Your task to perform on an android device: turn off notifications settings in the gmail app Image 0: 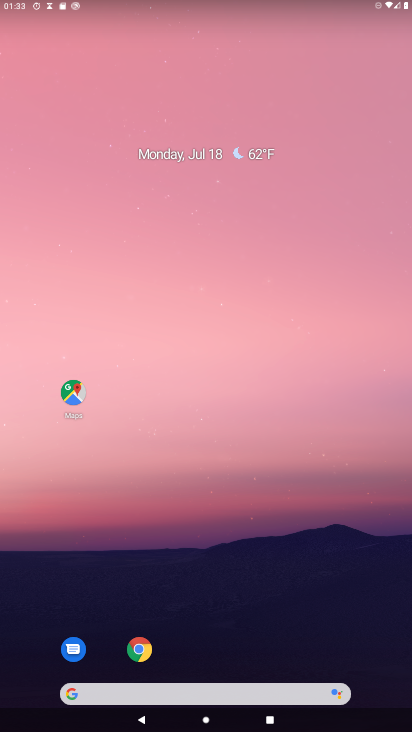
Step 0: drag from (126, 478) to (359, 70)
Your task to perform on an android device: turn off notifications settings in the gmail app Image 1: 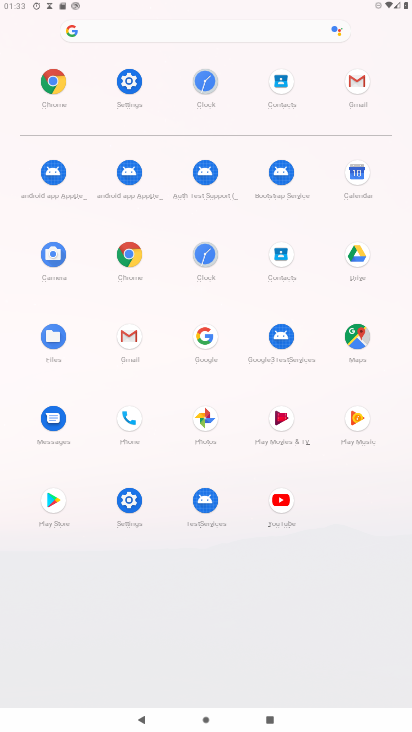
Step 1: click (133, 503)
Your task to perform on an android device: turn off notifications settings in the gmail app Image 2: 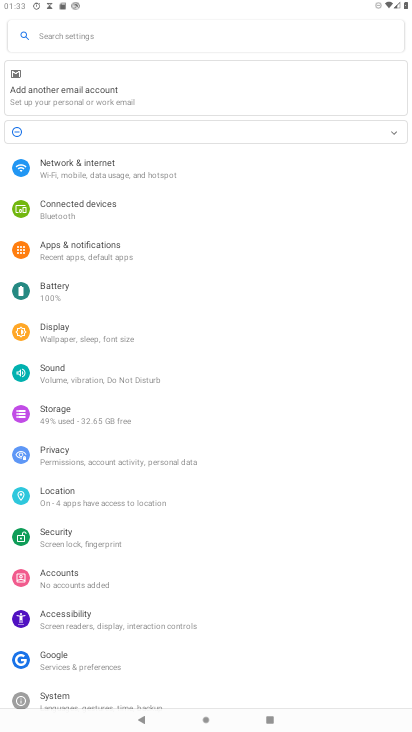
Step 2: click (51, 483)
Your task to perform on an android device: turn off notifications settings in the gmail app Image 3: 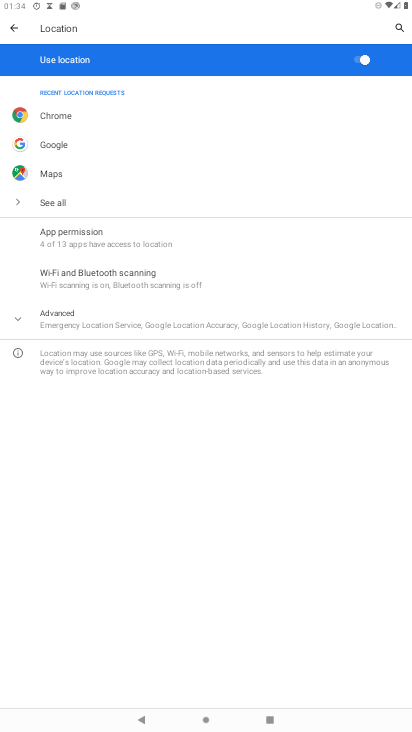
Step 3: press home button
Your task to perform on an android device: turn off notifications settings in the gmail app Image 4: 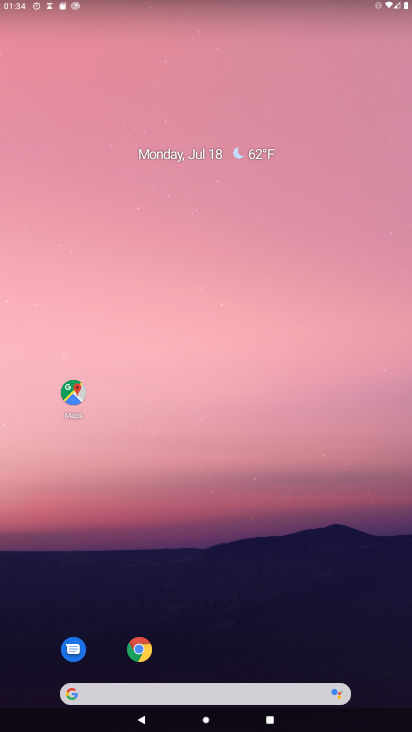
Step 4: drag from (56, 643) to (170, 317)
Your task to perform on an android device: turn off notifications settings in the gmail app Image 5: 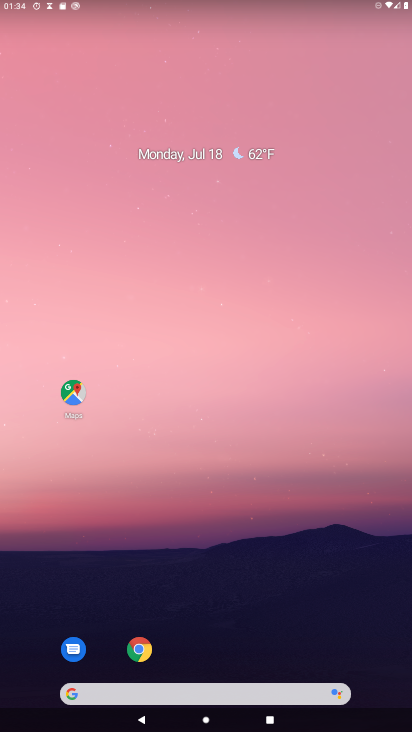
Step 5: drag from (22, 642) to (154, 248)
Your task to perform on an android device: turn off notifications settings in the gmail app Image 6: 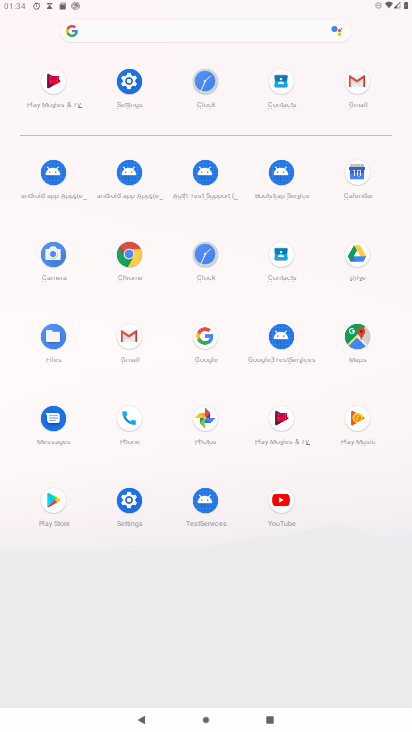
Step 6: click (124, 338)
Your task to perform on an android device: turn off notifications settings in the gmail app Image 7: 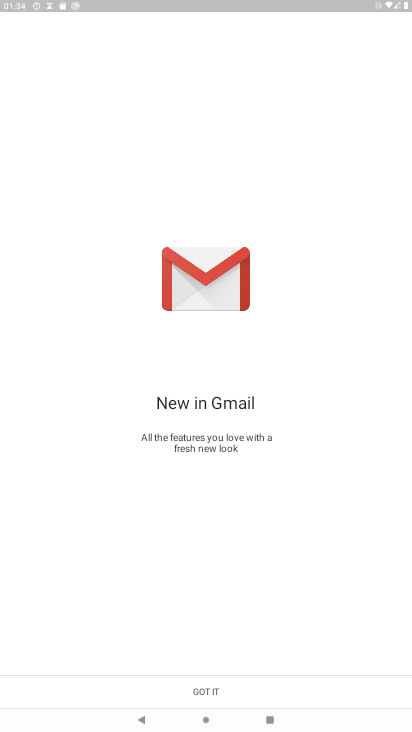
Step 7: click (234, 686)
Your task to perform on an android device: turn off notifications settings in the gmail app Image 8: 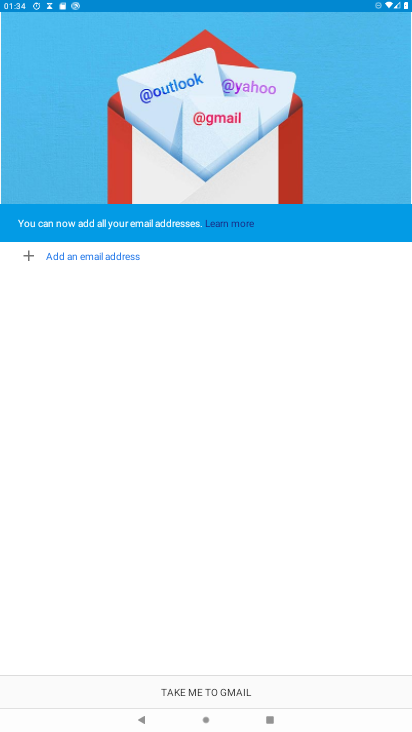
Step 8: click (176, 704)
Your task to perform on an android device: turn off notifications settings in the gmail app Image 9: 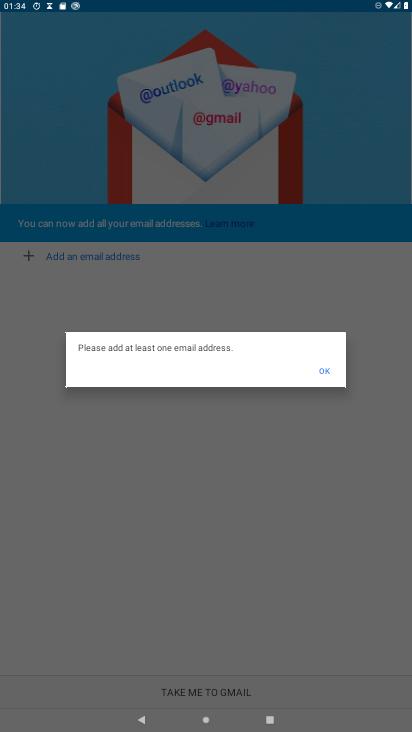
Step 9: task complete